Your task to perform on an android device: Open wifi settings Image 0: 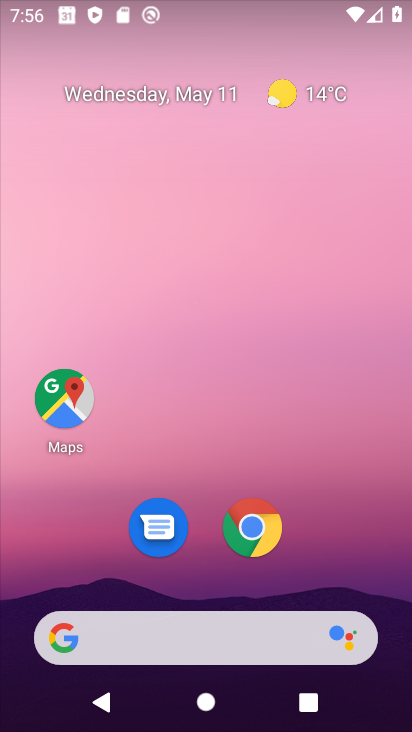
Step 0: drag from (211, 10) to (213, 622)
Your task to perform on an android device: Open wifi settings Image 1: 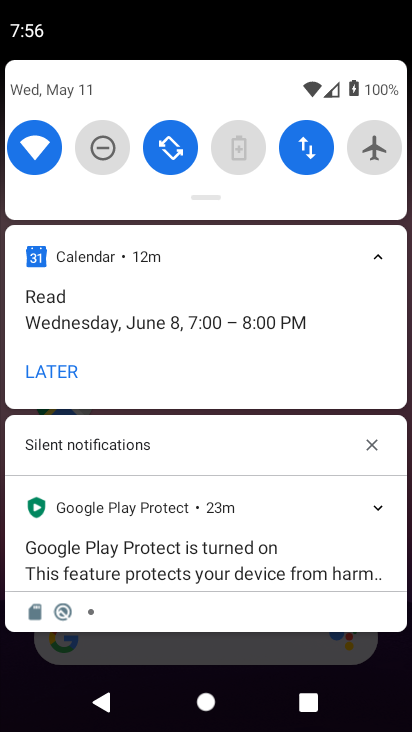
Step 1: click (40, 130)
Your task to perform on an android device: Open wifi settings Image 2: 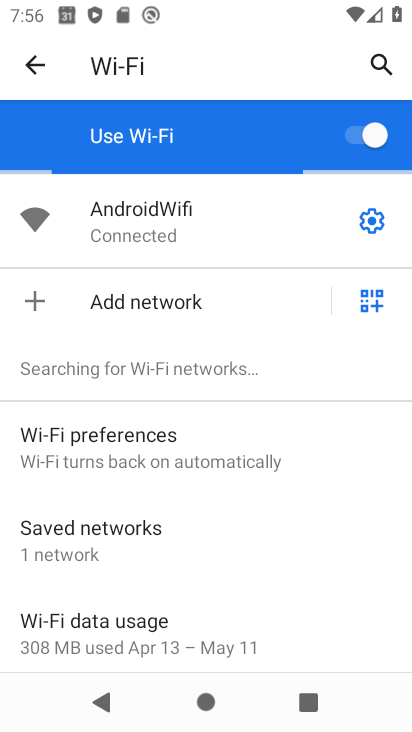
Step 2: task complete